Your task to perform on an android device: toggle javascript in the chrome app Image 0: 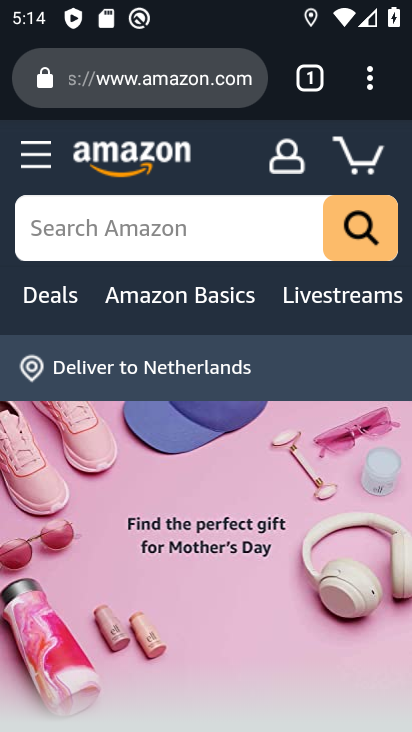
Step 0: click (375, 87)
Your task to perform on an android device: toggle javascript in the chrome app Image 1: 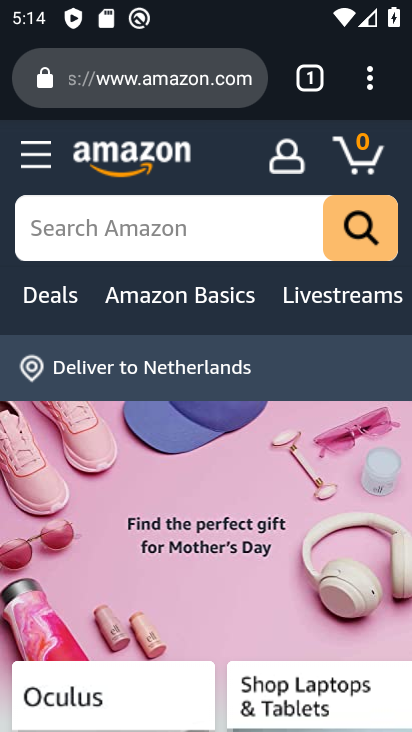
Step 1: drag from (368, 81) to (115, 623)
Your task to perform on an android device: toggle javascript in the chrome app Image 2: 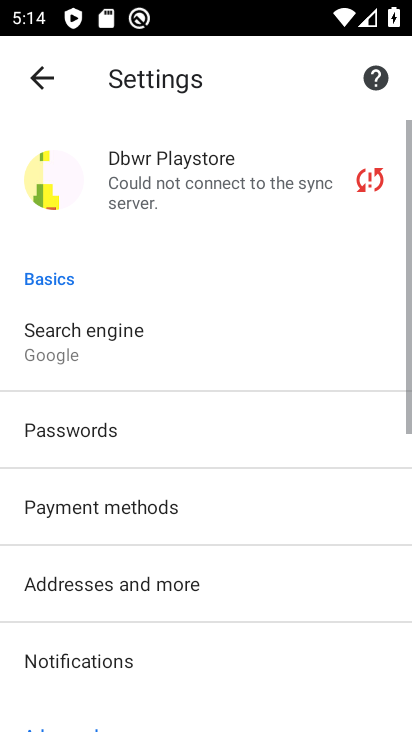
Step 2: drag from (170, 626) to (275, 247)
Your task to perform on an android device: toggle javascript in the chrome app Image 3: 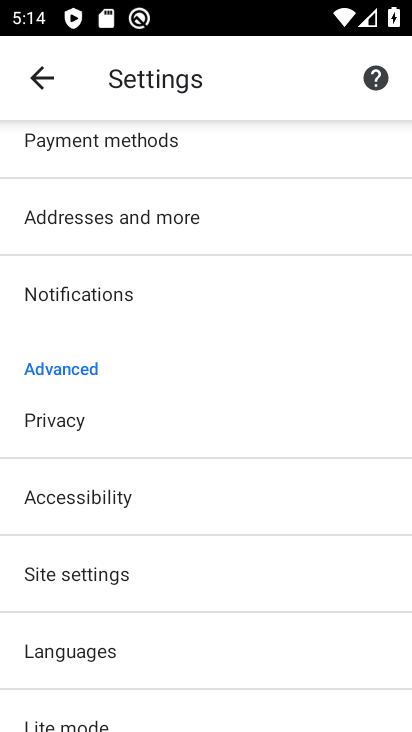
Step 3: drag from (165, 596) to (255, 253)
Your task to perform on an android device: toggle javascript in the chrome app Image 4: 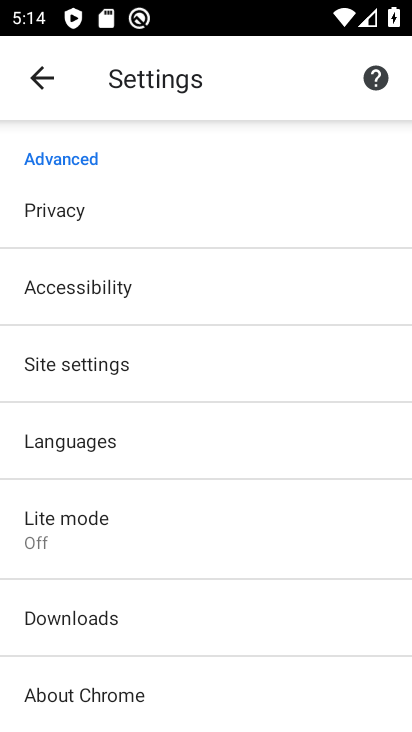
Step 4: click (97, 357)
Your task to perform on an android device: toggle javascript in the chrome app Image 5: 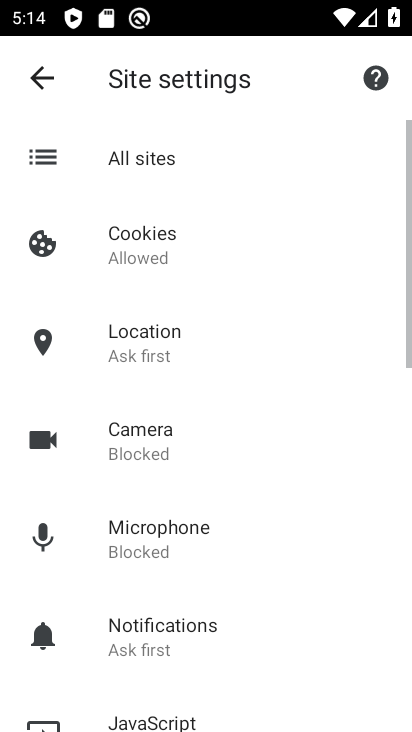
Step 5: drag from (227, 518) to (314, 143)
Your task to perform on an android device: toggle javascript in the chrome app Image 6: 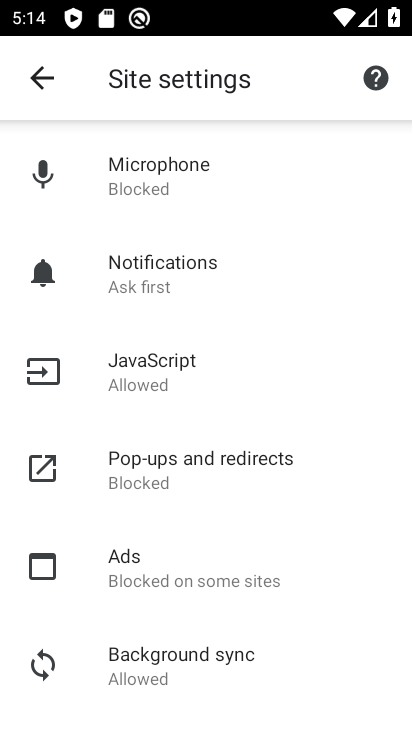
Step 6: click (184, 379)
Your task to perform on an android device: toggle javascript in the chrome app Image 7: 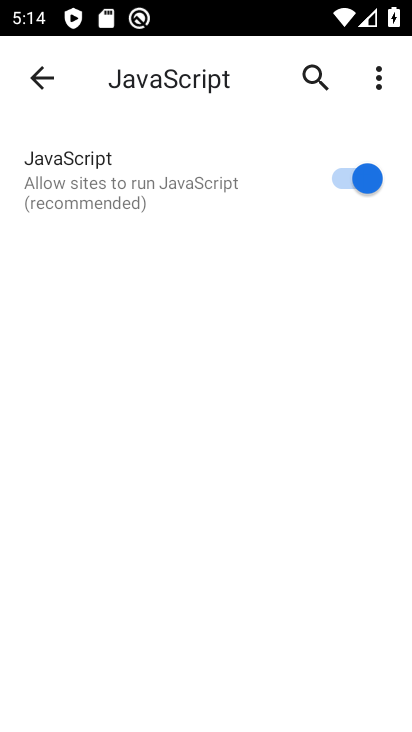
Step 7: click (344, 188)
Your task to perform on an android device: toggle javascript in the chrome app Image 8: 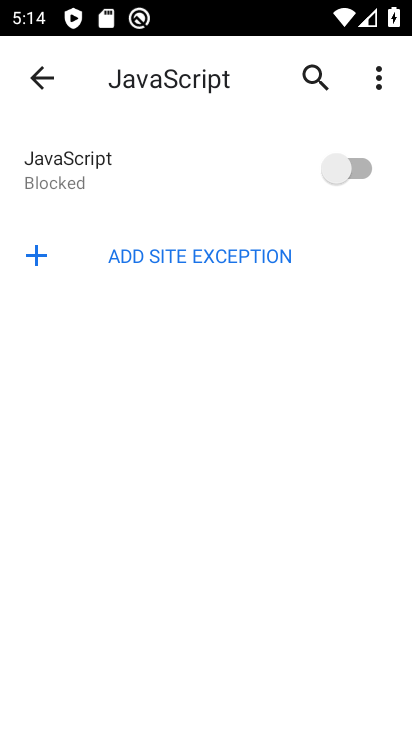
Step 8: task complete